Your task to perform on an android device: What's the weather? Image 0: 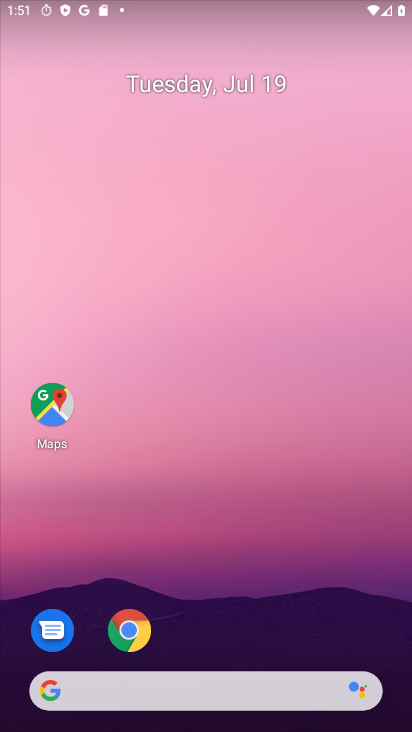
Step 0: click (200, 682)
Your task to perform on an android device: What's the weather? Image 1: 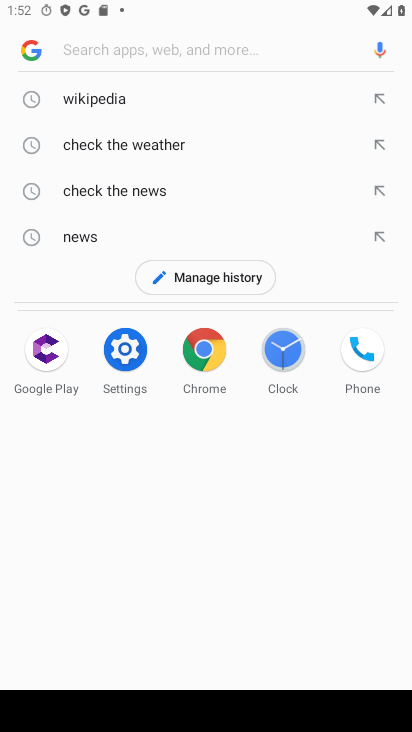
Step 1: type "what's the weather"
Your task to perform on an android device: What's the weather? Image 2: 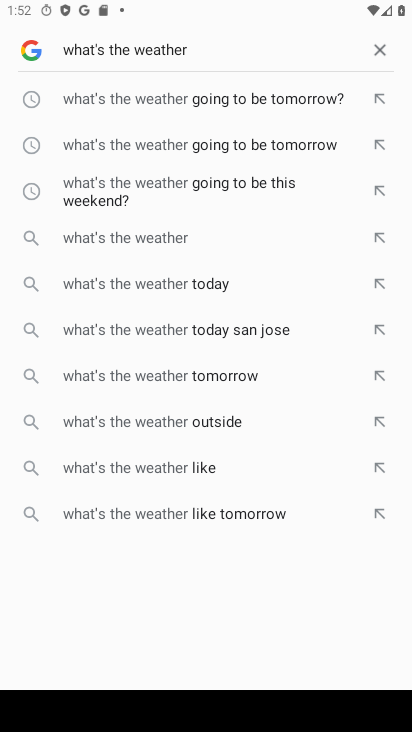
Step 2: click (162, 224)
Your task to perform on an android device: What's the weather? Image 3: 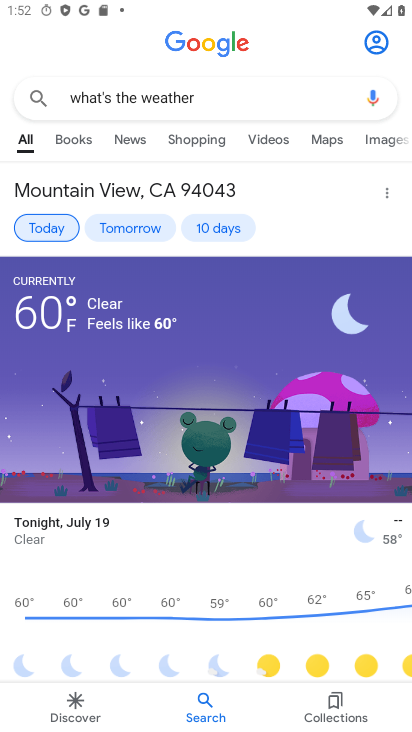
Step 3: task complete